Your task to perform on an android device: open a bookmark in the chrome app Image 0: 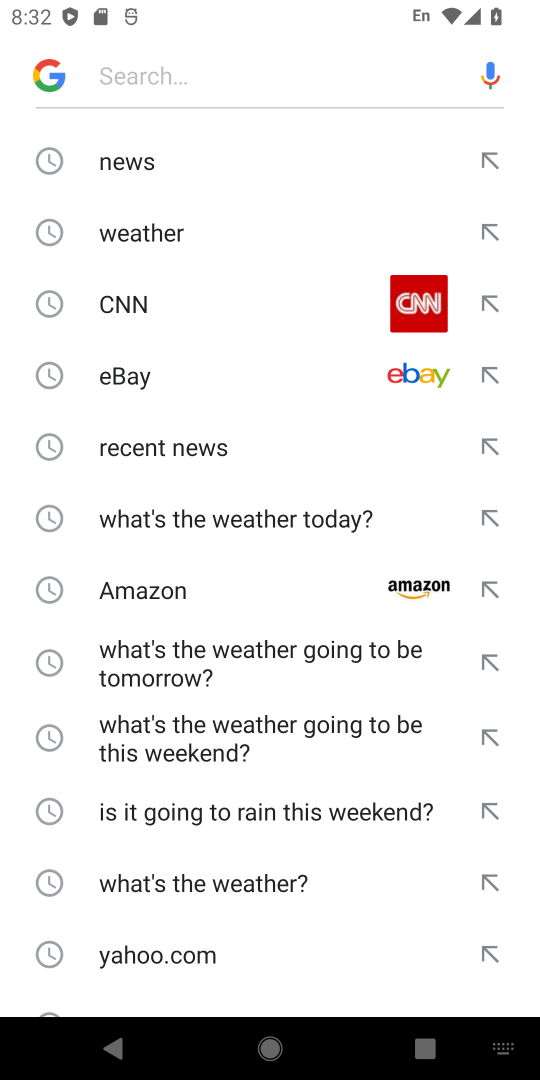
Step 0: click (479, 160)
Your task to perform on an android device: open a bookmark in the chrome app Image 1: 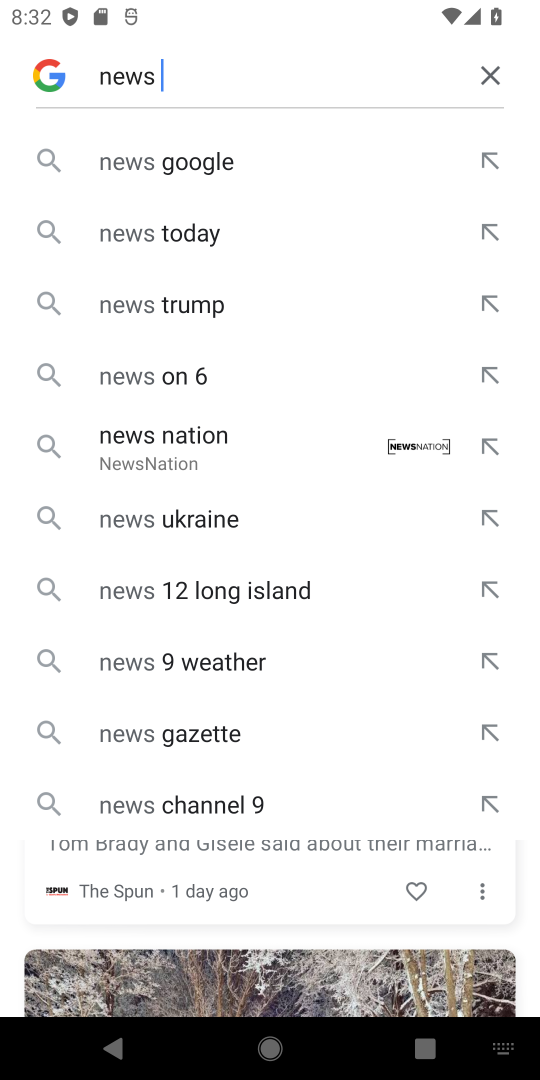
Step 1: drag from (493, 79) to (474, 733)
Your task to perform on an android device: open a bookmark in the chrome app Image 2: 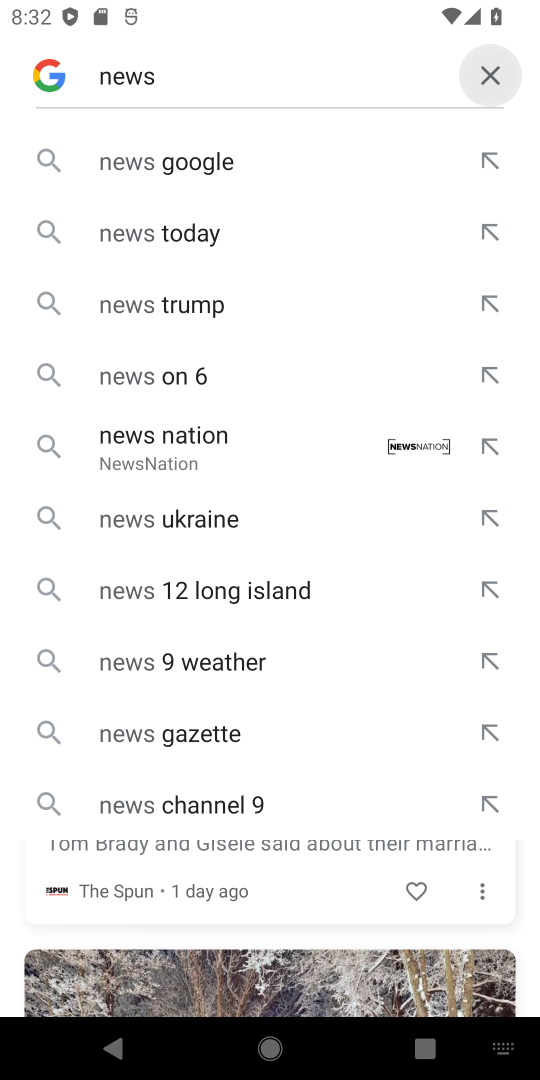
Step 2: drag from (491, 58) to (453, 673)
Your task to perform on an android device: open a bookmark in the chrome app Image 3: 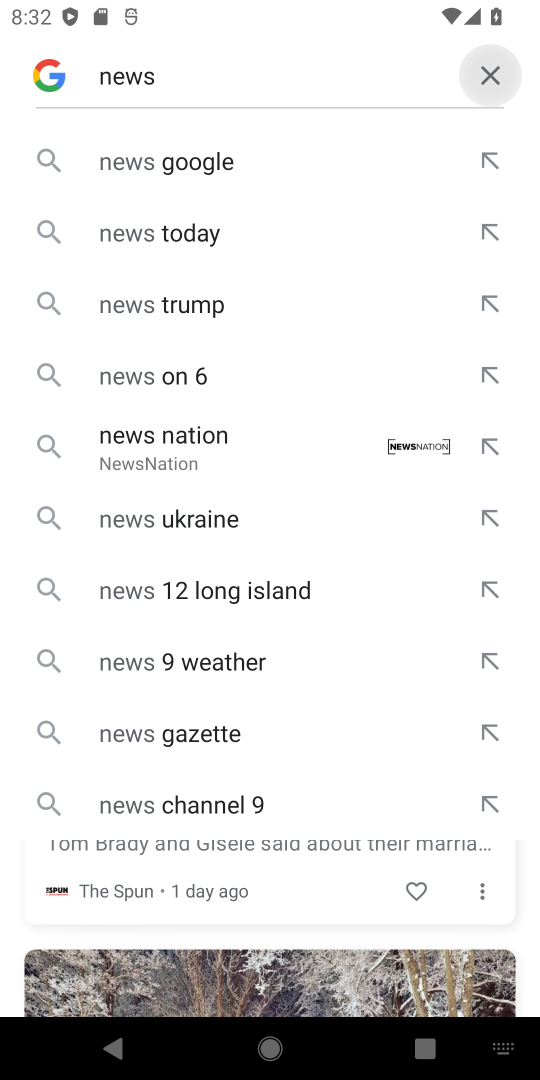
Step 3: drag from (484, 153) to (525, 356)
Your task to perform on an android device: open a bookmark in the chrome app Image 4: 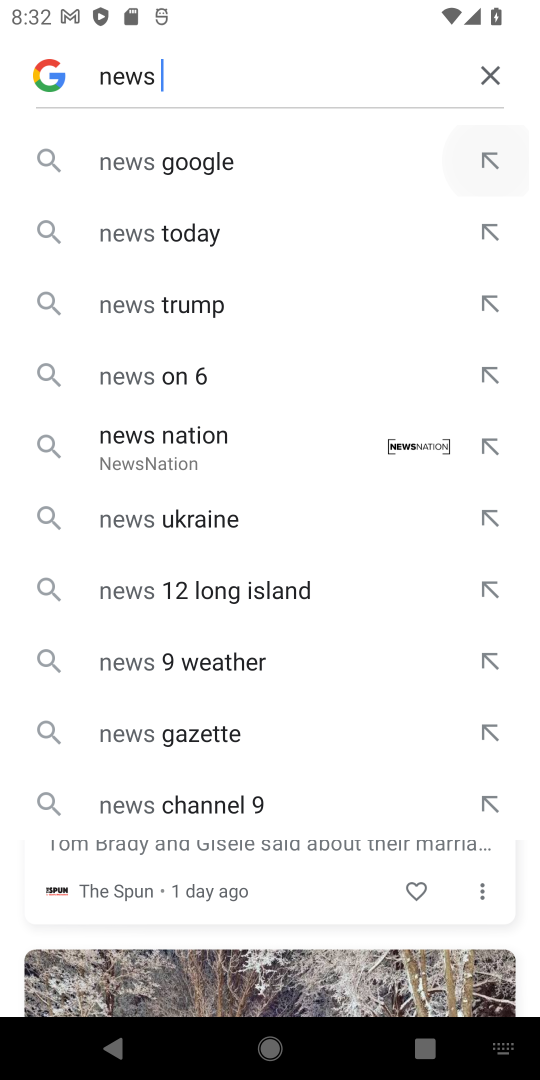
Step 4: press back button
Your task to perform on an android device: open a bookmark in the chrome app Image 5: 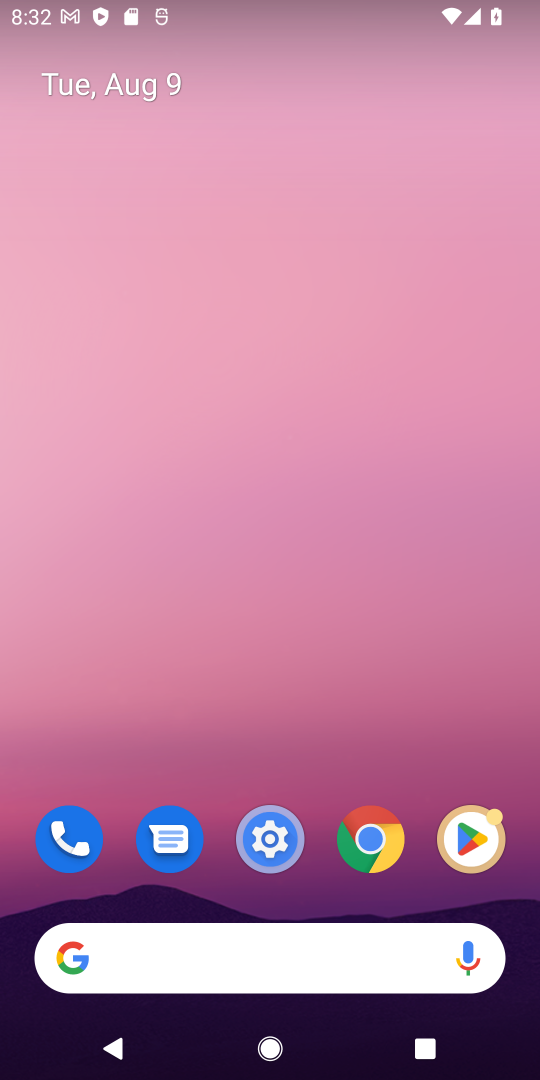
Step 5: click (377, 818)
Your task to perform on an android device: open a bookmark in the chrome app Image 6: 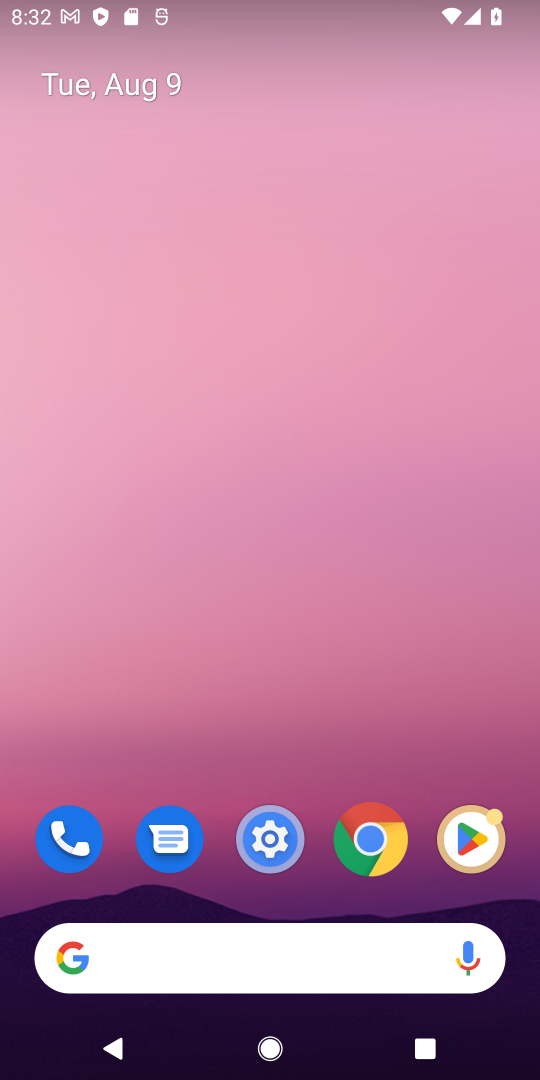
Step 6: click (377, 822)
Your task to perform on an android device: open a bookmark in the chrome app Image 7: 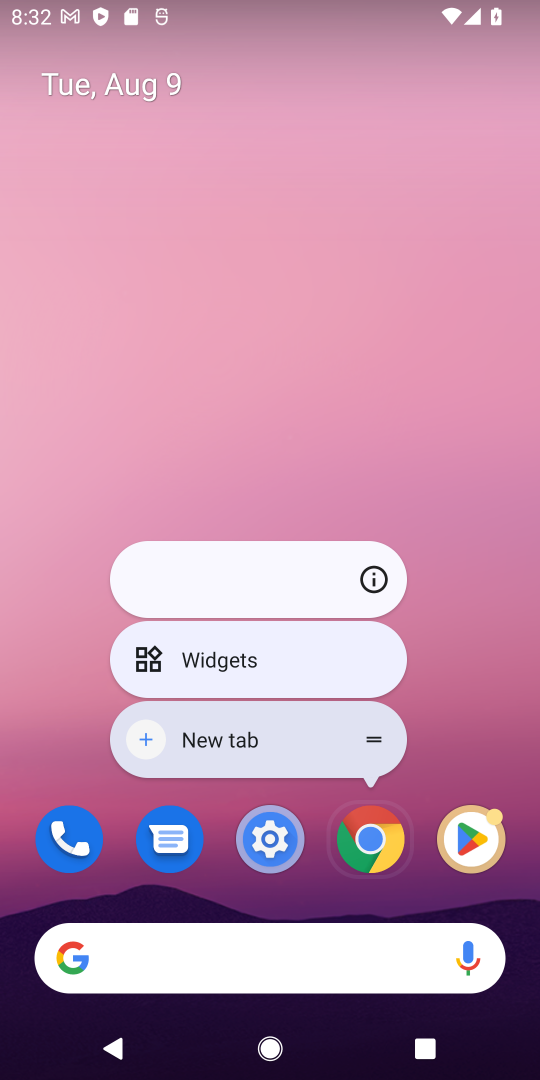
Step 7: task complete